Your task to perform on an android device: star an email in the gmail app Image 0: 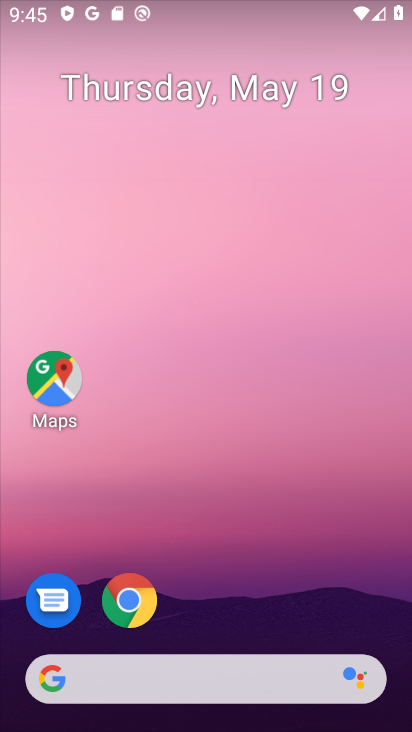
Step 0: drag from (243, 549) to (239, 19)
Your task to perform on an android device: star an email in the gmail app Image 1: 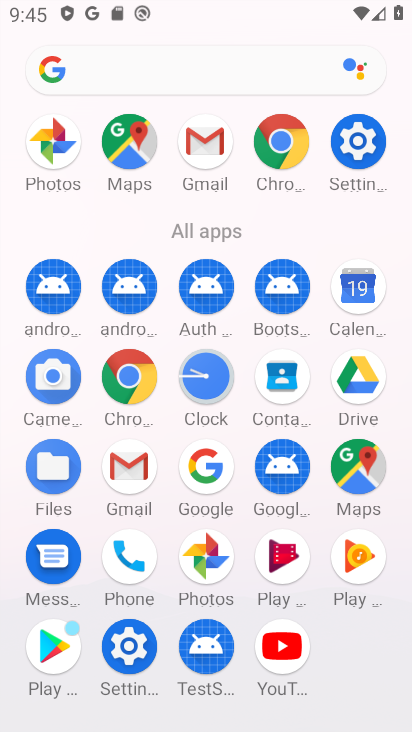
Step 1: click (128, 464)
Your task to perform on an android device: star an email in the gmail app Image 2: 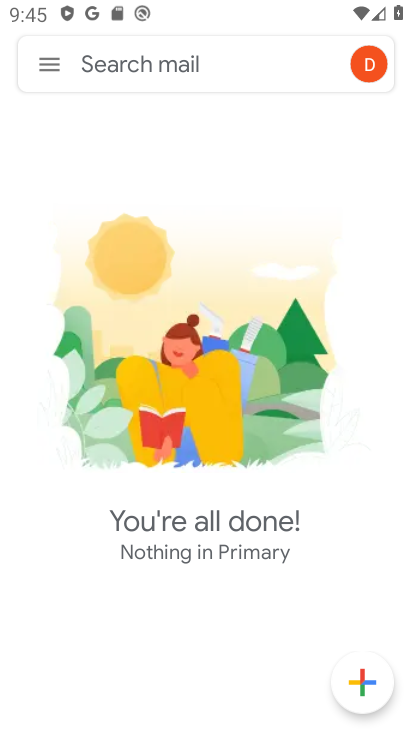
Step 2: click (55, 67)
Your task to perform on an android device: star an email in the gmail app Image 3: 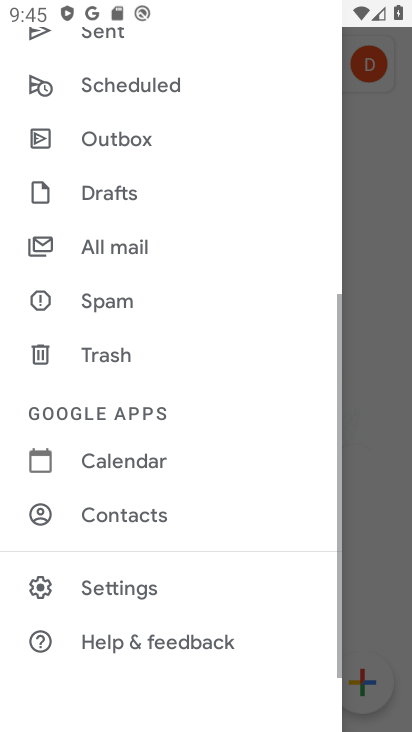
Step 3: click (126, 242)
Your task to perform on an android device: star an email in the gmail app Image 4: 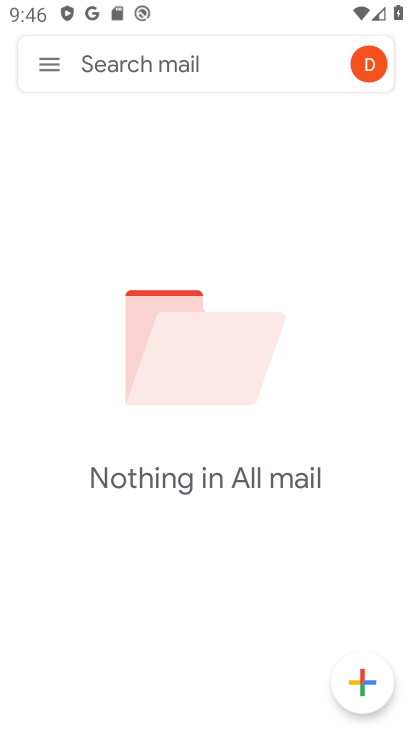
Step 4: click (62, 61)
Your task to perform on an android device: star an email in the gmail app Image 5: 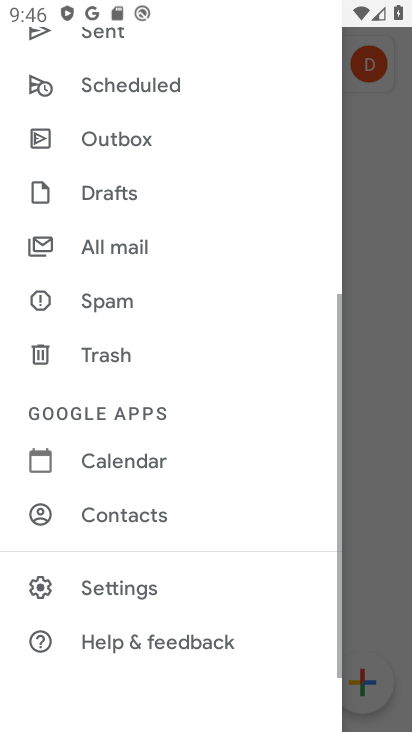
Step 5: drag from (221, 177) to (255, 549)
Your task to perform on an android device: star an email in the gmail app Image 6: 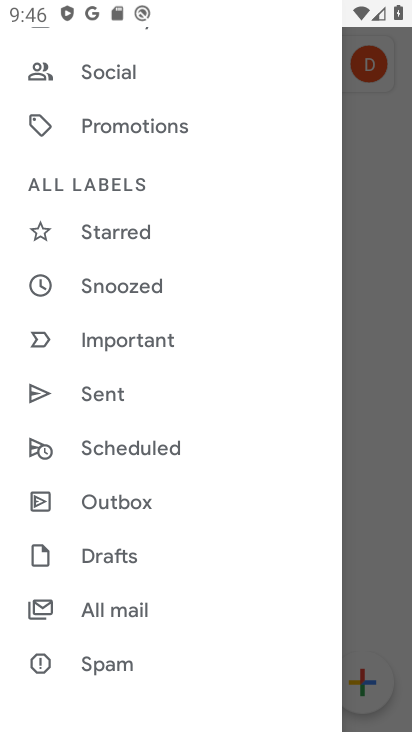
Step 6: click (148, 225)
Your task to perform on an android device: star an email in the gmail app Image 7: 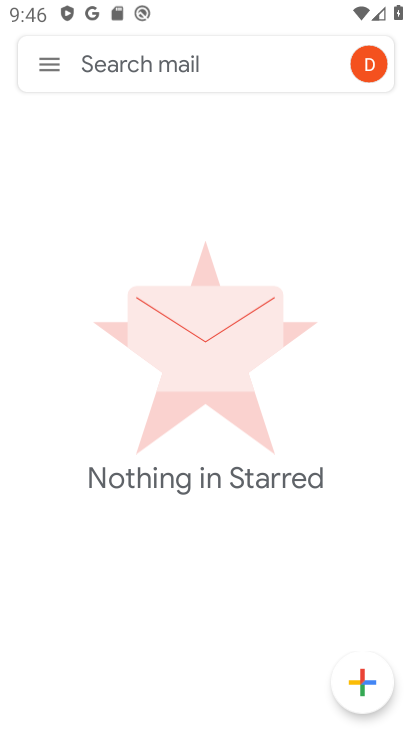
Step 7: click (51, 60)
Your task to perform on an android device: star an email in the gmail app Image 8: 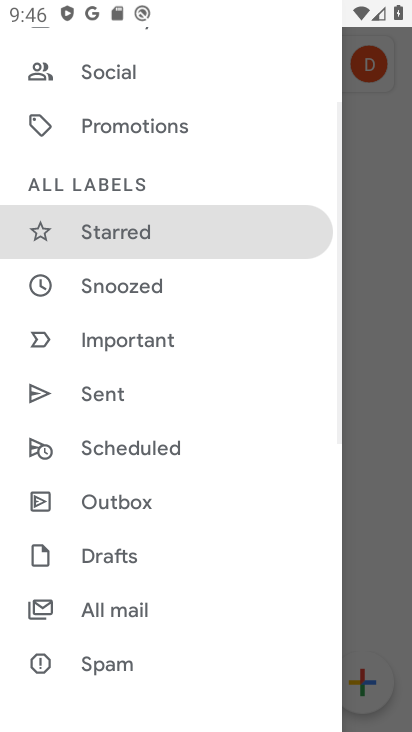
Step 8: click (154, 612)
Your task to perform on an android device: star an email in the gmail app Image 9: 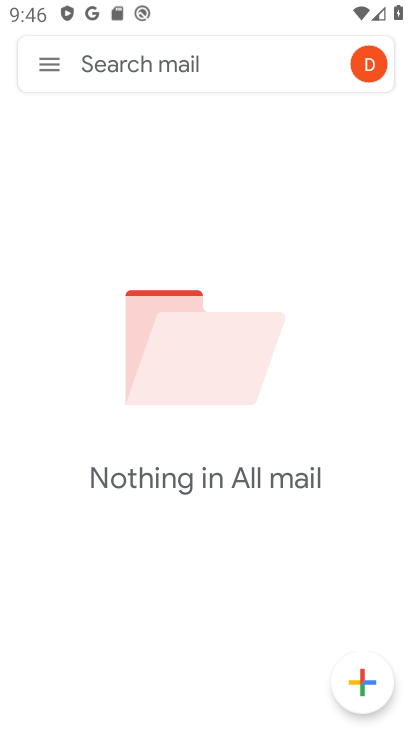
Step 9: click (47, 56)
Your task to perform on an android device: star an email in the gmail app Image 10: 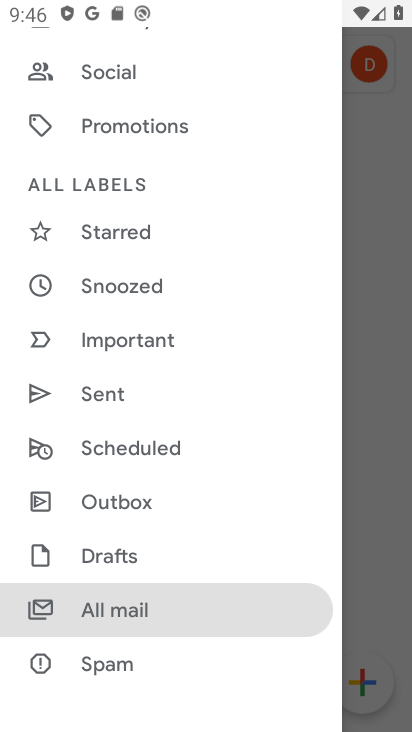
Step 10: drag from (187, 129) to (201, 591)
Your task to perform on an android device: star an email in the gmail app Image 11: 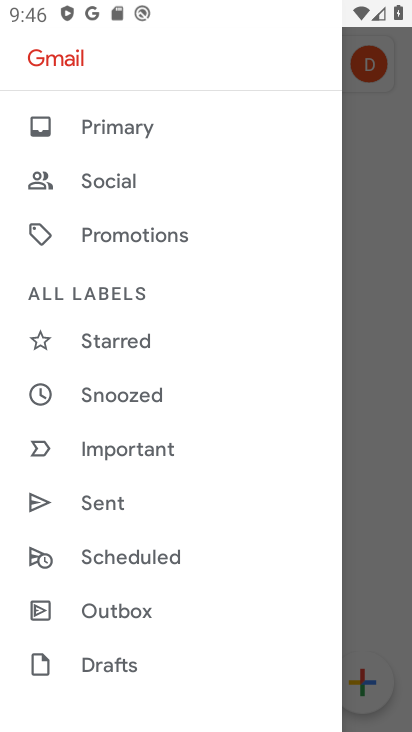
Step 11: click (150, 108)
Your task to perform on an android device: star an email in the gmail app Image 12: 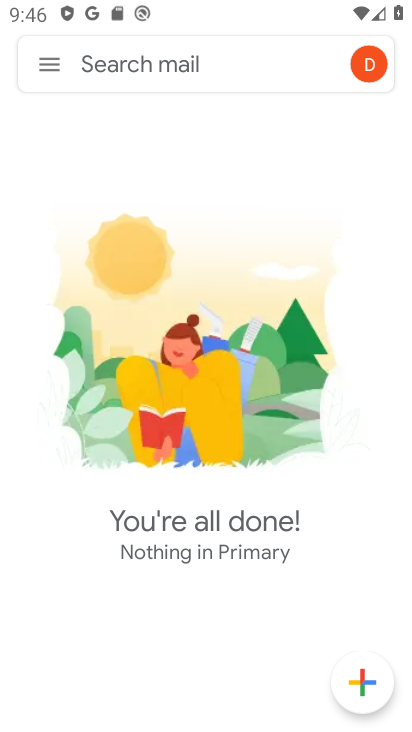
Step 12: task complete